Your task to perform on an android device: set the timer Image 0: 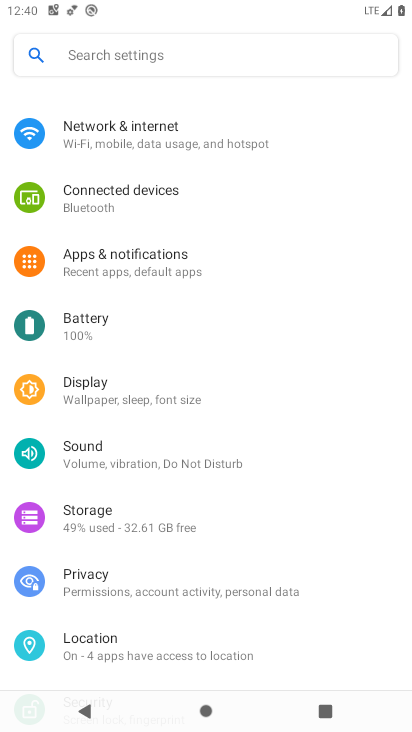
Step 0: drag from (229, 573) to (391, 4)
Your task to perform on an android device: set the timer Image 1: 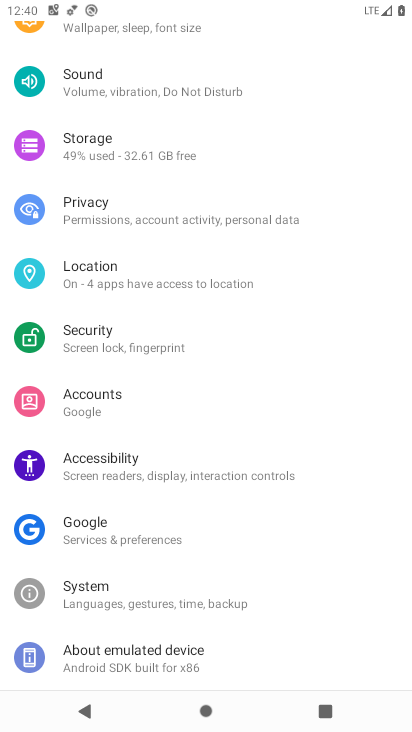
Step 1: press home button
Your task to perform on an android device: set the timer Image 2: 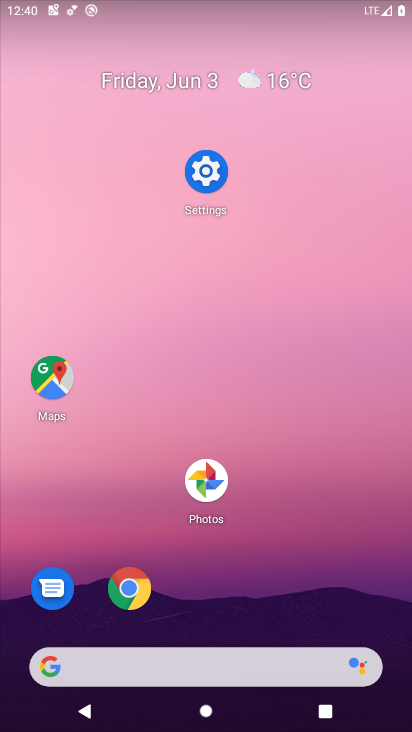
Step 2: drag from (186, 592) to (193, 61)
Your task to perform on an android device: set the timer Image 3: 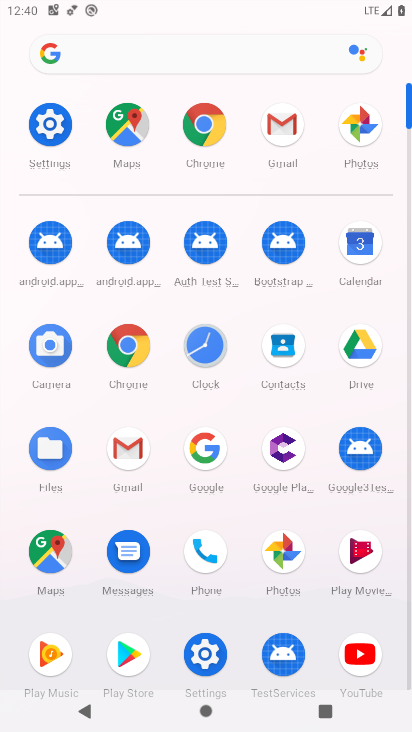
Step 3: click (215, 337)
Your task to perform on an android device: set the timer Image 4: 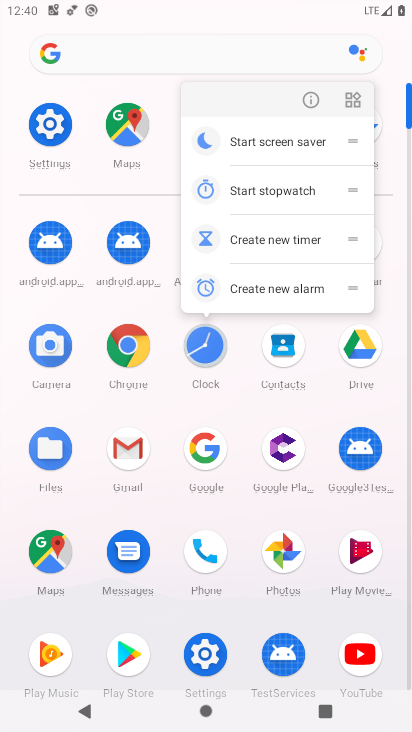
Step 4: click (297, 103)
Your task to perform on an android device: set the timer Image 5: 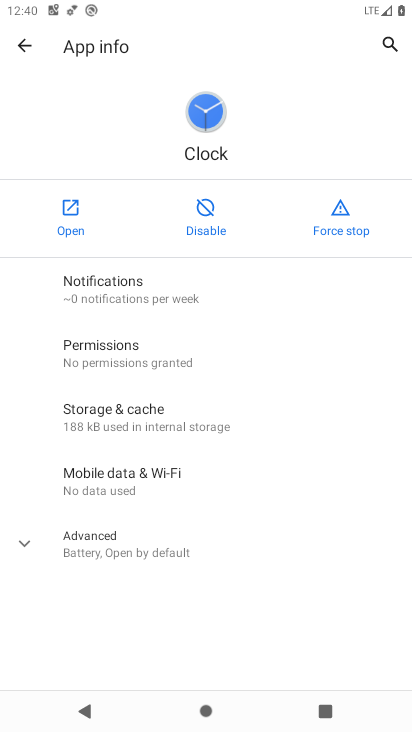
Step 5: click (78, 204)
Your task to perform on an android device: set the timer Image 6: 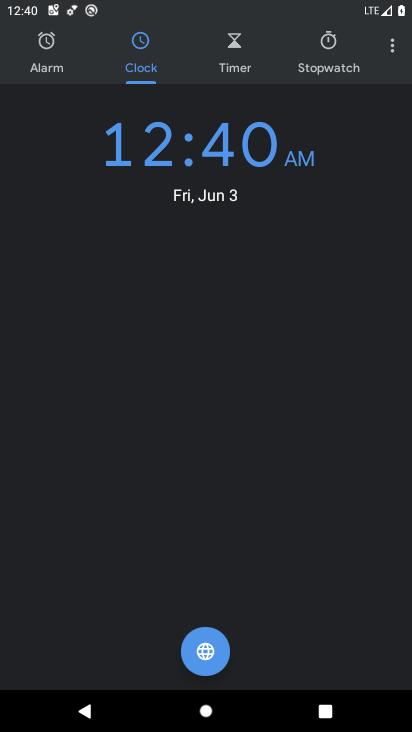
Step 6: drag from (289, 520) to (292, 232)
Your task to perform on an android device: set the timer Image 7: 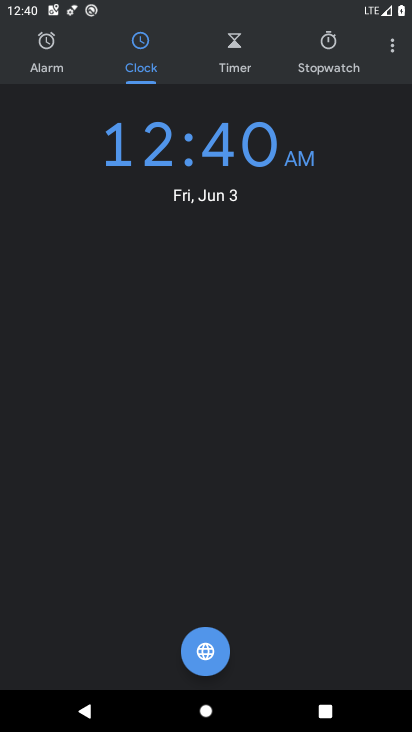
Step 7: click (399, 42)
Your task to perform on an android device: set the timer Image 8: 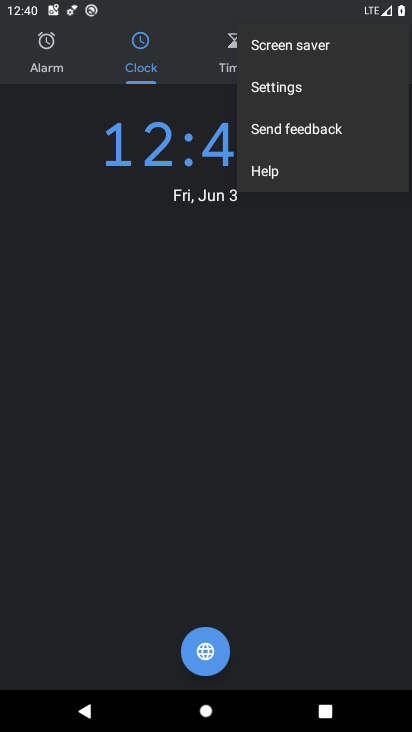
Step 8: click (337, 77)
Your task to perform on an android device: set the timer Image 9: 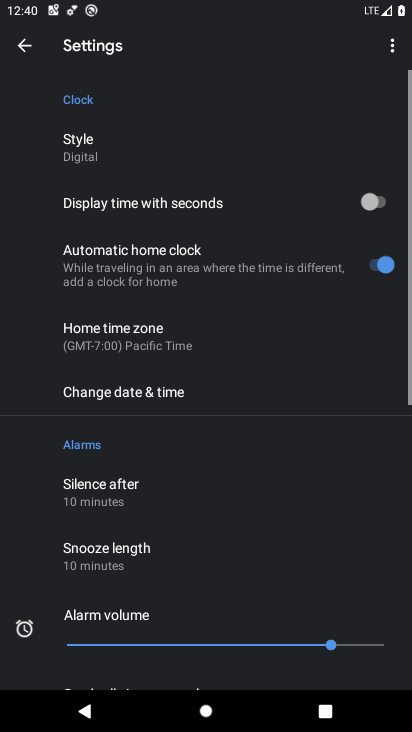
Step 9: drag from (292, 454) to (322, 109)
Your task to perform on an android device: set the timer Image 10: 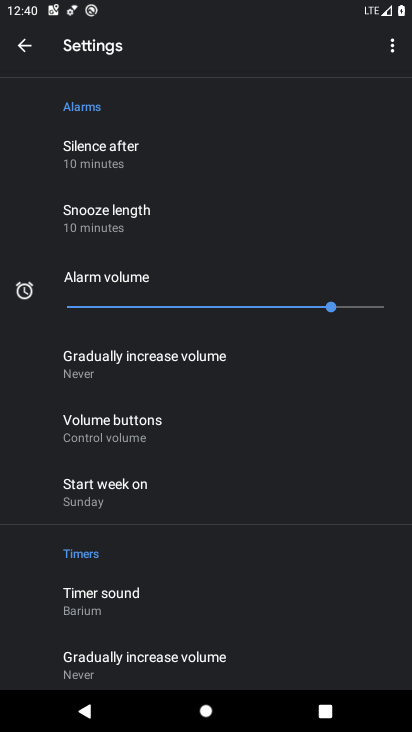
Step 10: drag from (232, 476) to (259, 105)
Your task to perform on an android device: set the timer Image 11: 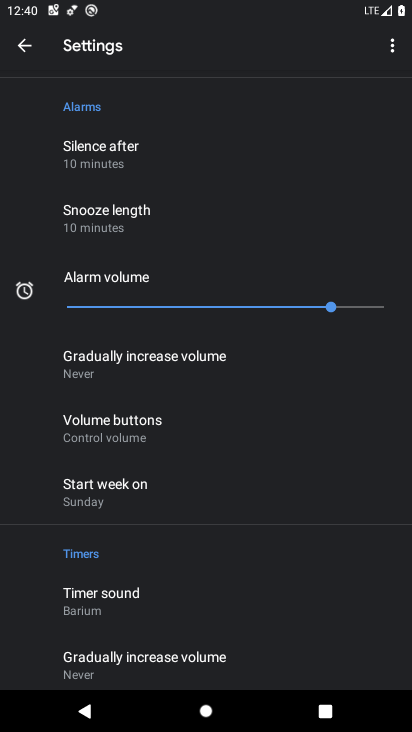
Step 11: drag from (82, 638) to (121, 343)
Your task to perform on an android device: set the timer Image 12: 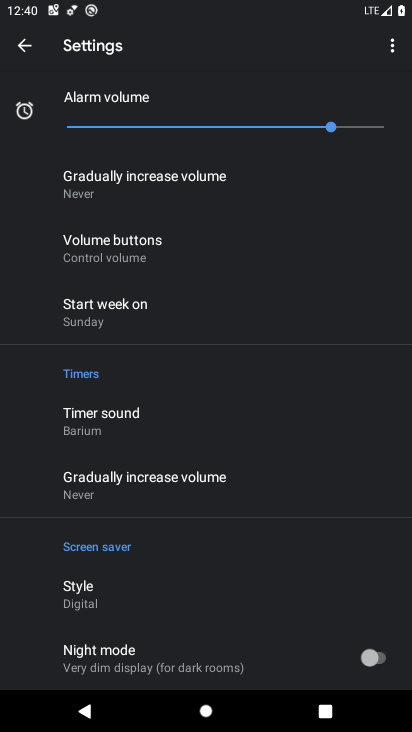
Step 12: drag from (222, 631) to (213, 306)
Your task to perform on an android device: set the timer Image 13: 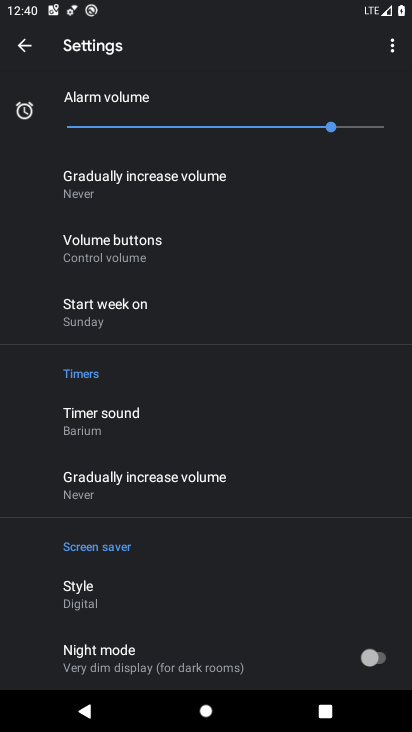
Step 13: drag from (165, 266) to (237, 721)
Your task to perform on an android device: set the timer Image 14: 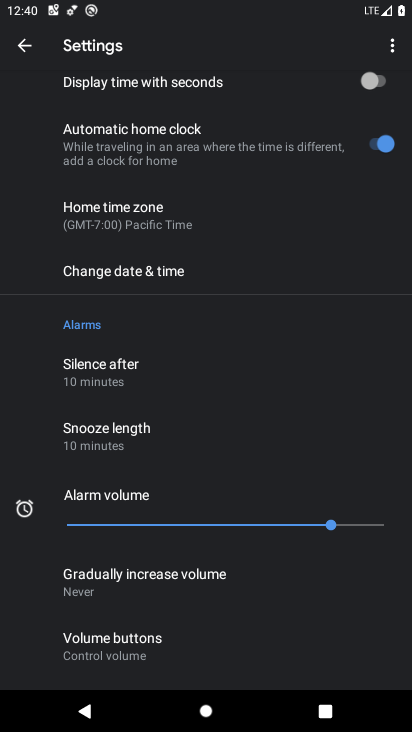
Step 14: drag from (195, 558) to (235, 260)
Your task to perform on an android device: set the timer Image 15: 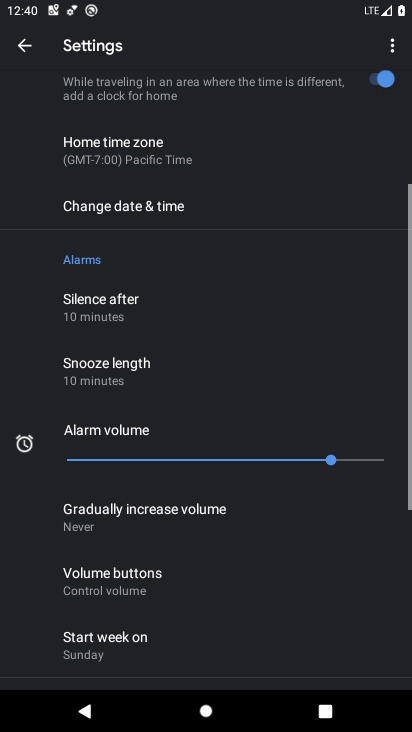
Step 15: drag from (227, 265) to (408, 282)
Your task to perform on an android device: set the timer Image 16: 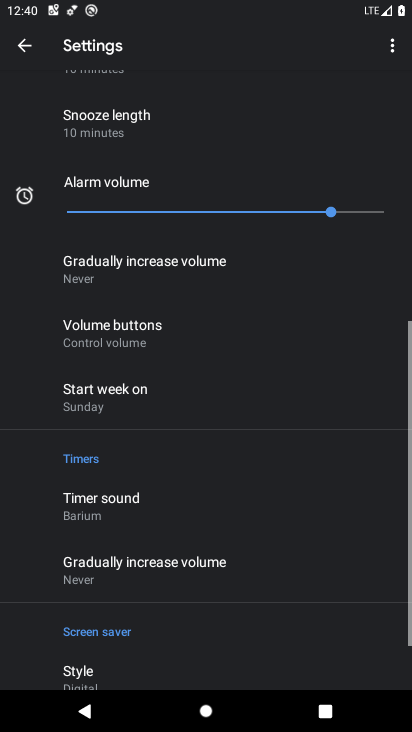
Step 16: drag from (201, 247) to (289, 730)
Your task to perform on an android device: set the timer Image 17: 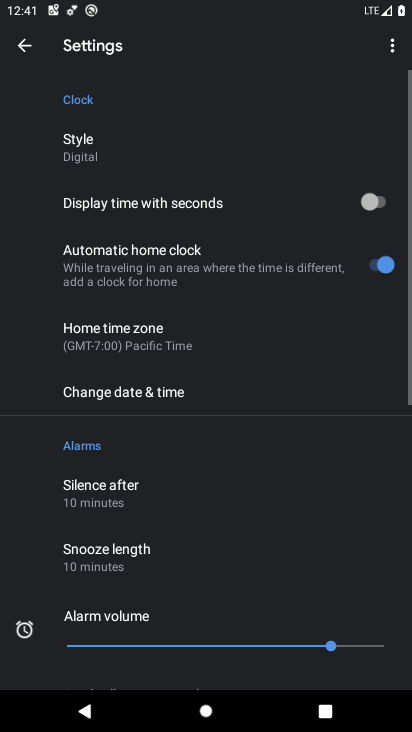
Step 17: drag from (219, 617) to (185, 7)
Your task to perform on an android device: set the timer Image 18: 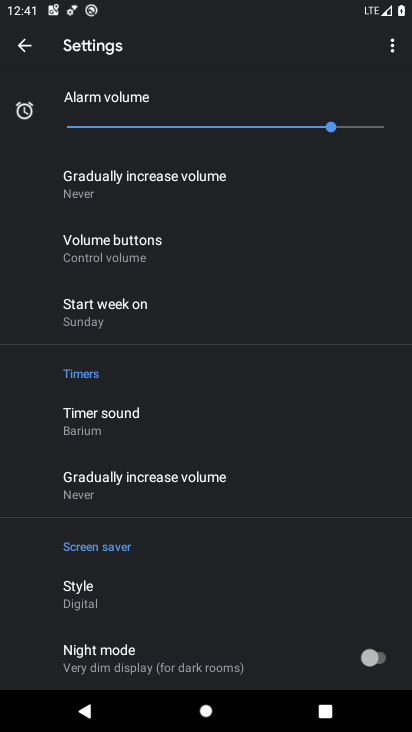
Step 18: click (25, 46)
Your task to perform on an android device: set the timer Image 19: 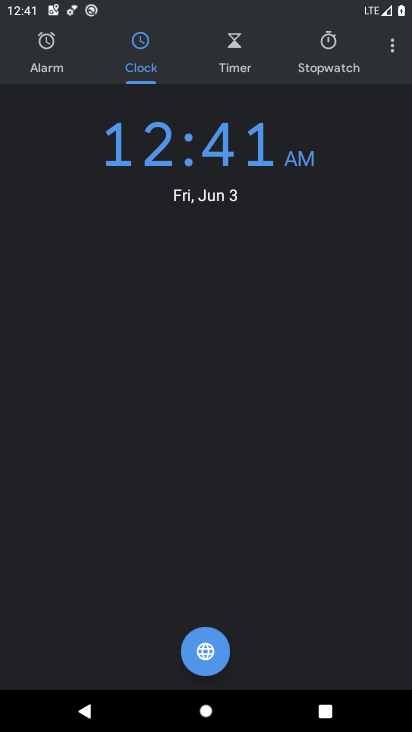
Step 19: click (225, 53)
Your task to perform on an android device: set the timer Image 20: 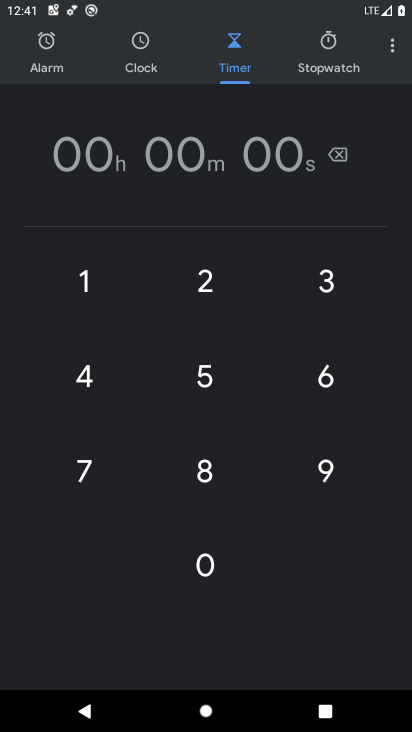
Step 20: click (208, 253)
Your task to perform on an android device: set the timer Image 21: 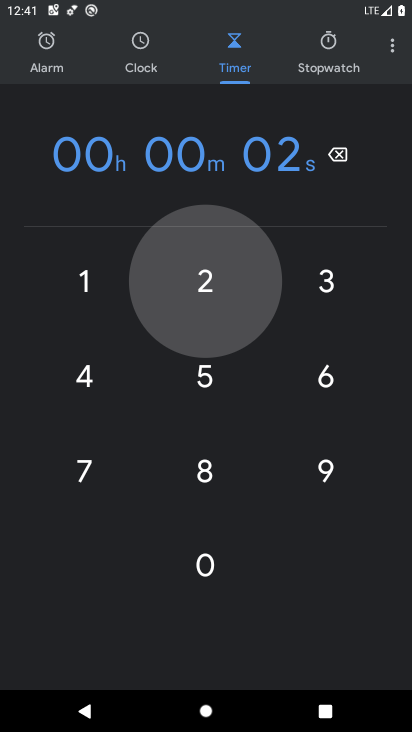
Step 21: click (213, 356)
Your task to perform on an android device: set the timer Image 22: 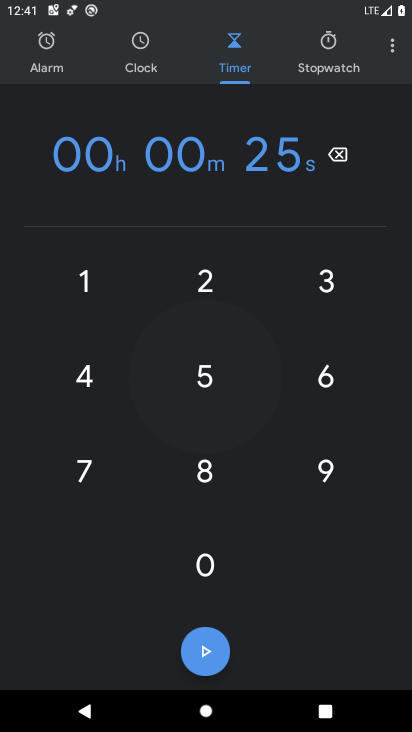
Step 22: click (313, 363)
Your task to perform on an android device: set the timer Image 23: 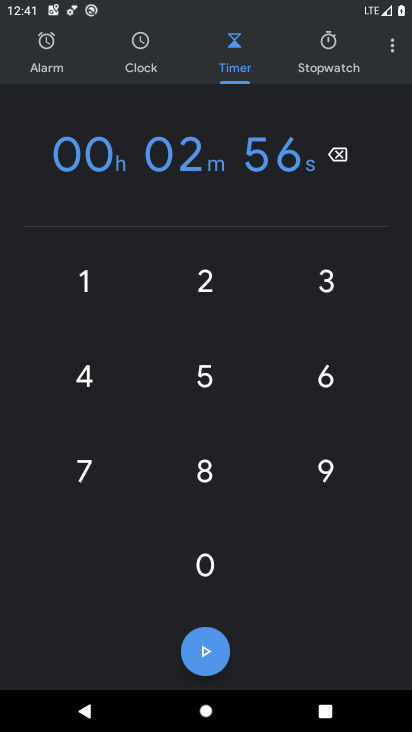
Step 23: click (211, 653)
Your task to perform on an android device: set the timer Image 24: 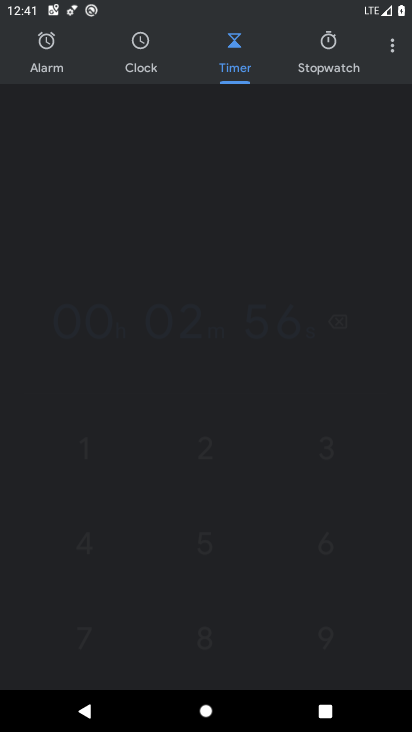
Step 24: task complete